Your task to perform on an android device: Search for the best websites on the internet Image 0: 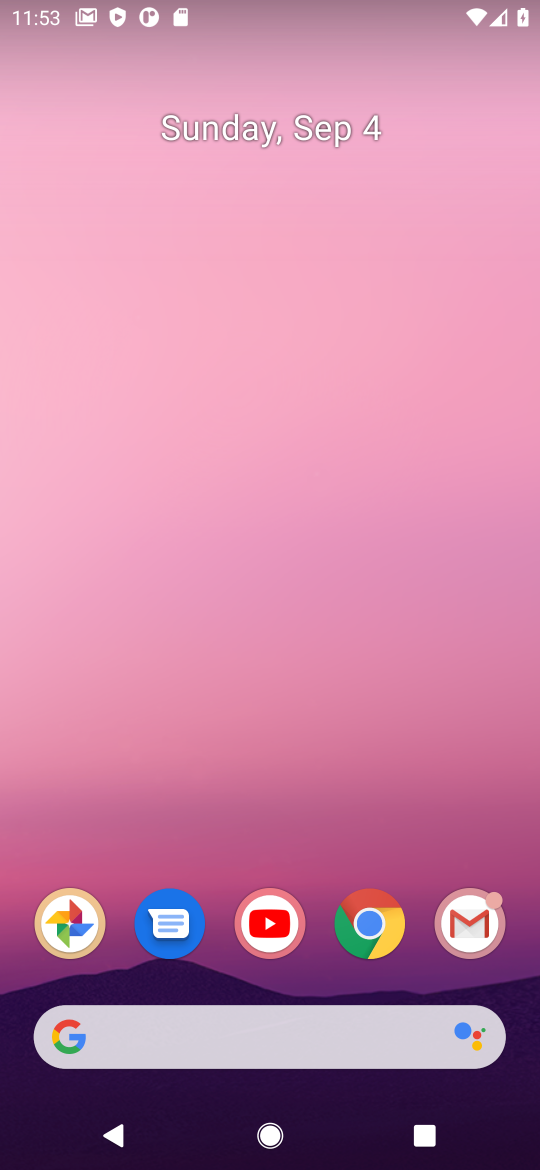
Step 0: click (357, 948)
Your task to perform on an android device: Search for the best websites on the internet Image 1: 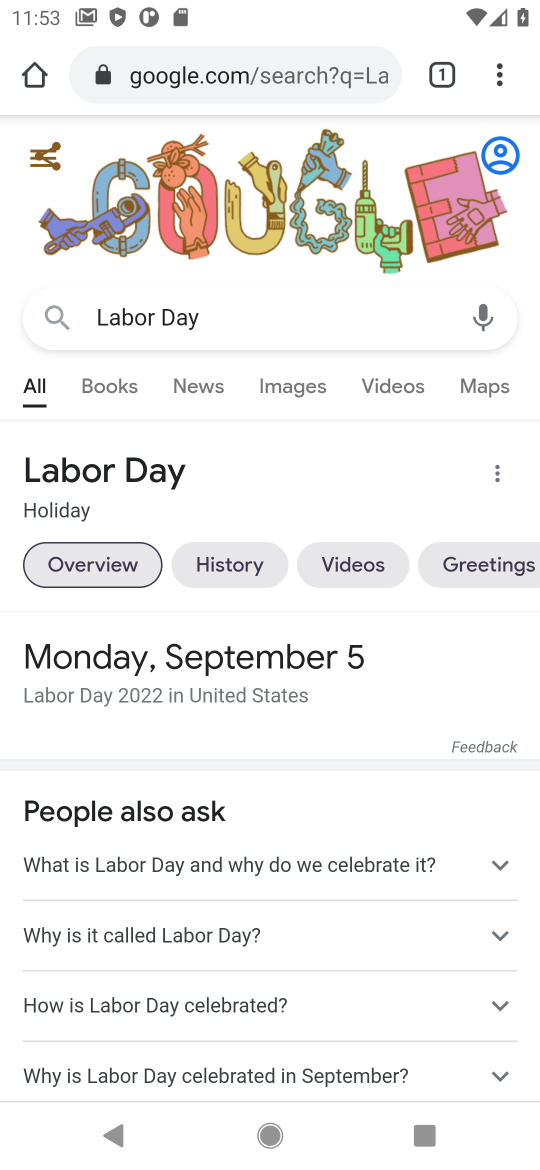
Step 1: click (172, 86)
Your task to perform on an android device: Search for the best websites on the internet Image 2: 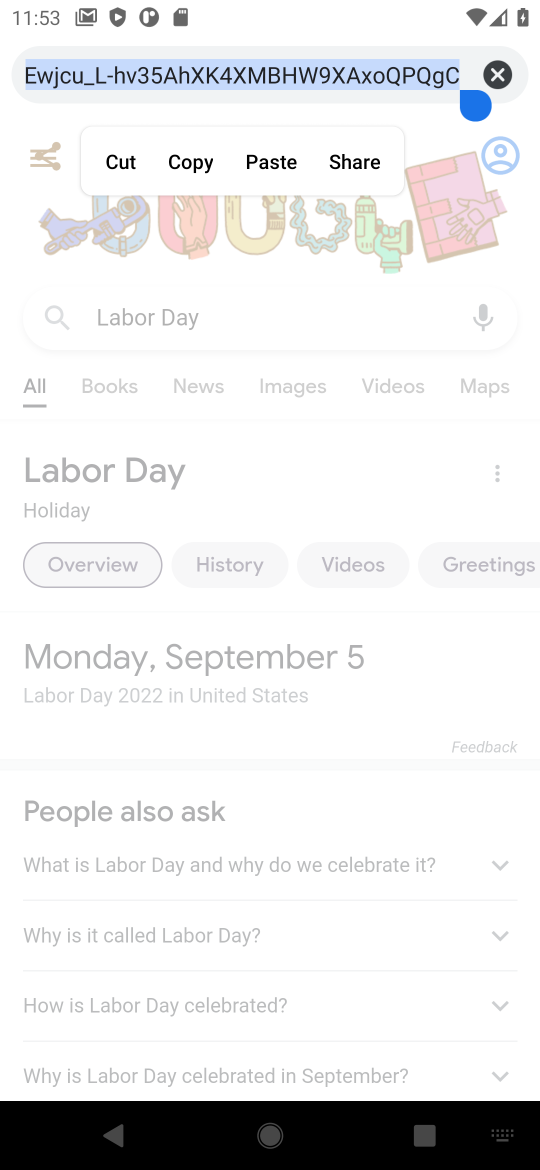
Step 2: click (496, 71)
Your task to perform on an android device: Search for the best websites on the internet Image 3: 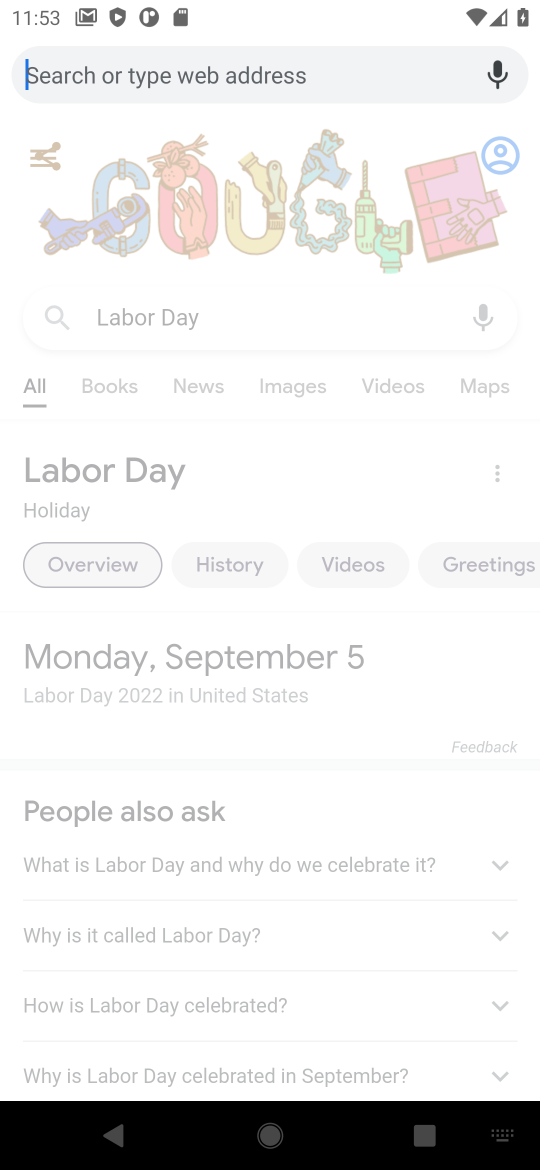
Step 3: type "the best websites on the internet"
Your task to perform on an android device: Search for the best websites on the internet Image 4: 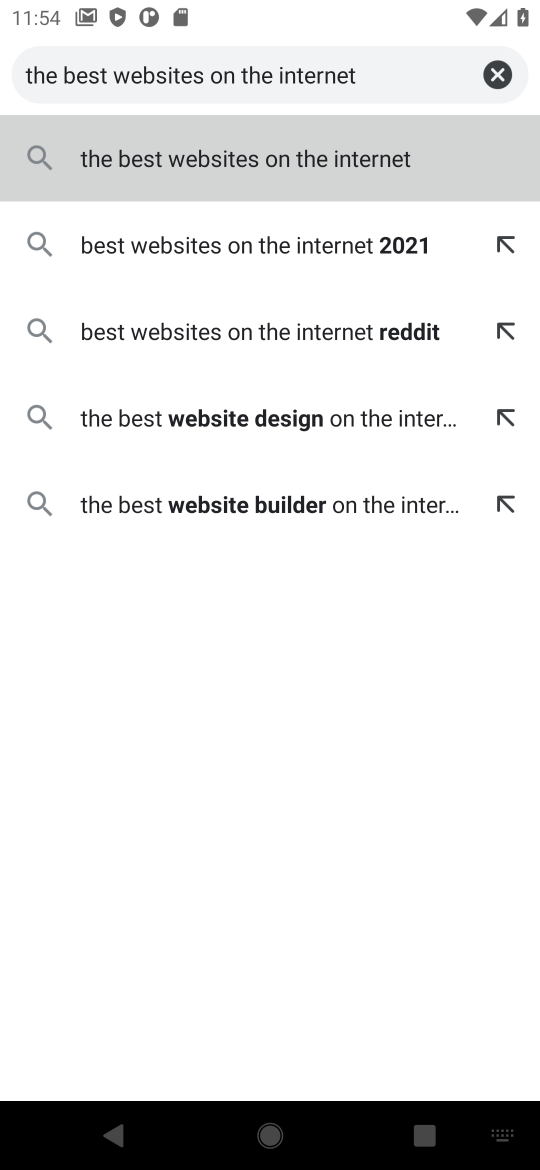
Step 4: click (318, 182)
Your task to perform on an android device: Search for the best websites on the internet Image 5: 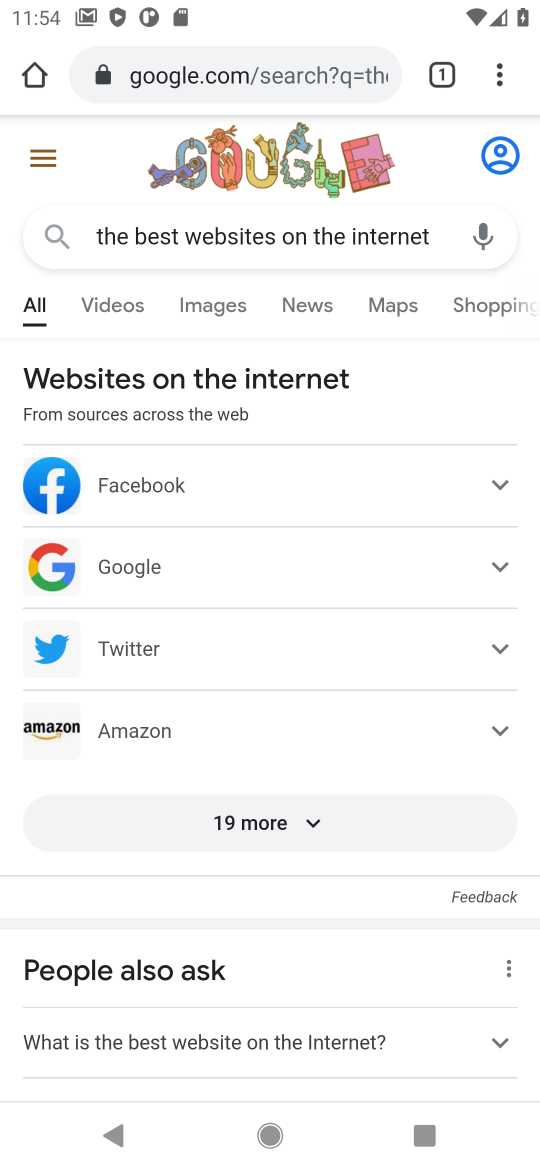
Step 5: task complete